Your task to perform on an android device: star an email in the gmail app Image 0: 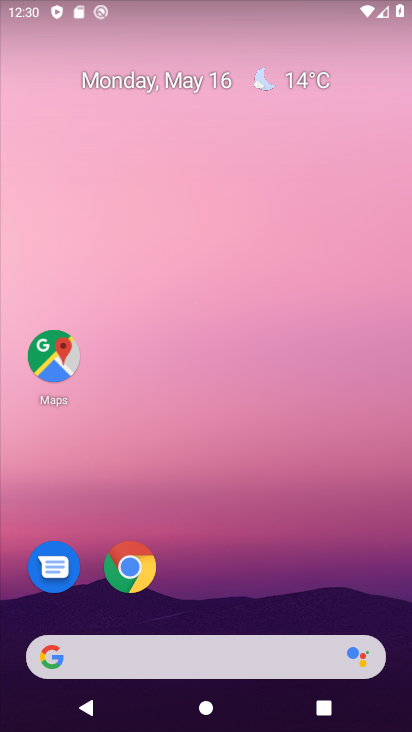
Step 0: drag from (228, 518) to (161, 55)
Your task to perform on an android device: star an email in the gmail app Image 1: 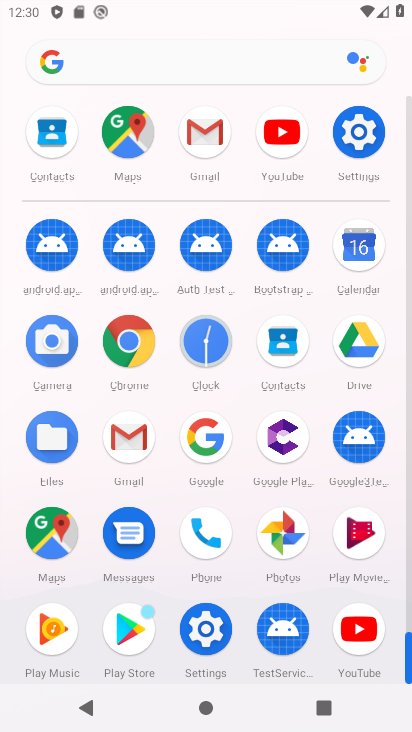
Step 1: click (132, 432)
Your task to perform on an android device: star an email in the gmail app Image 2: 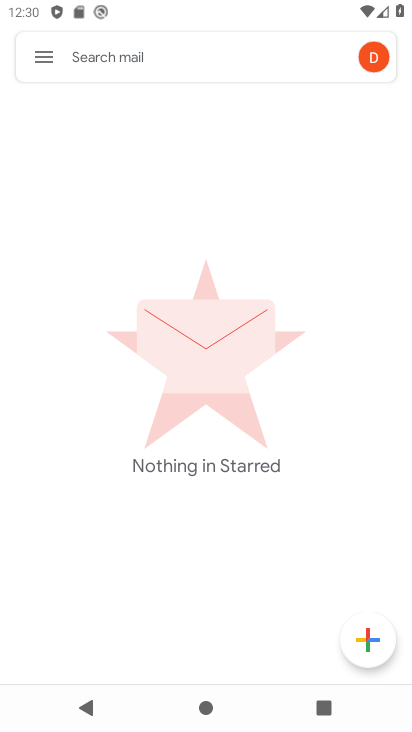
Step 2: click (41, 62)
Your task to perform on an android device: star an email in the gmail app Image 3: 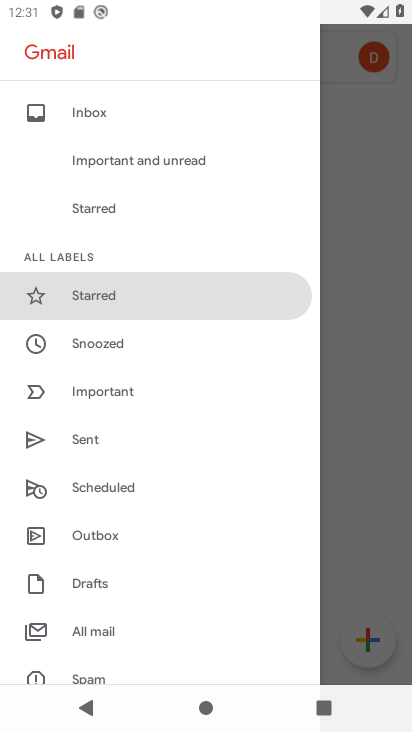
Step 3: click (114, 623)
Your task to perform on an android device: star an email in the gmail app Image 4: 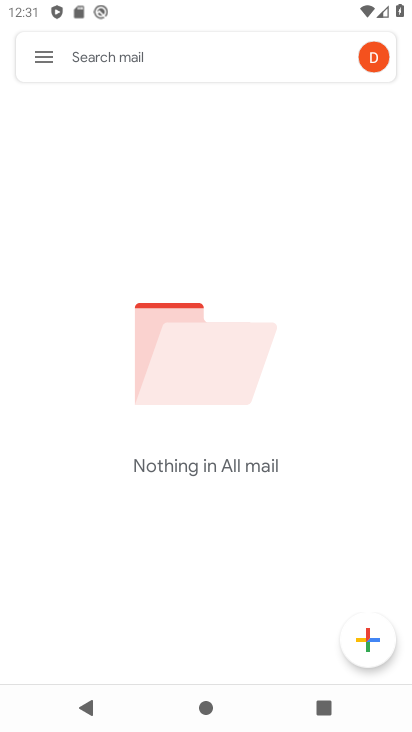
Step 4: task complete